Your task to perform on an android device: Show me productivity apps on the Play Store Image 0: 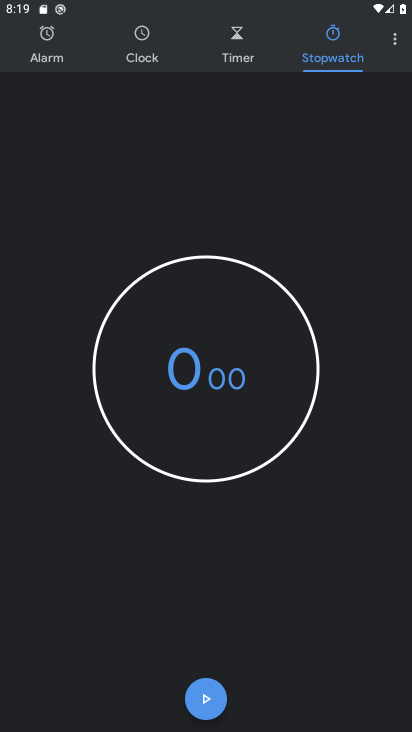
Step 0: press home button
Your task to perform on an android device: Show me productivity apps on the Play Store Image 1: 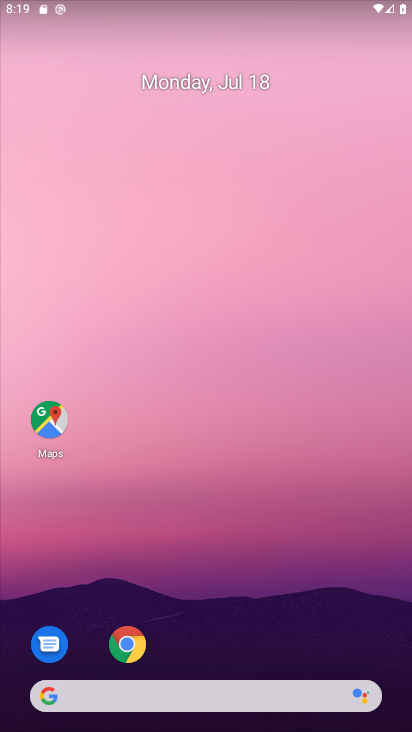
Step 1: drag from (236, 623) to (159, 180)
Your task to perform on an android device: Show me productivity apps on the Play Store Image 2: 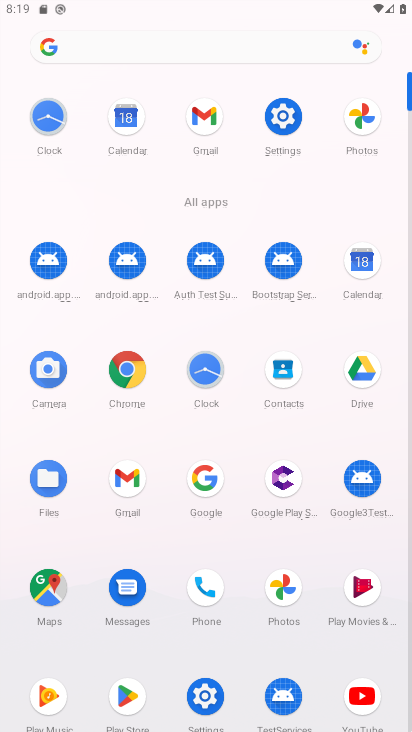
Step 2: click (123, 691)
Your task to perform on an android device: Show me productivity apps on the Play Store Image 3: 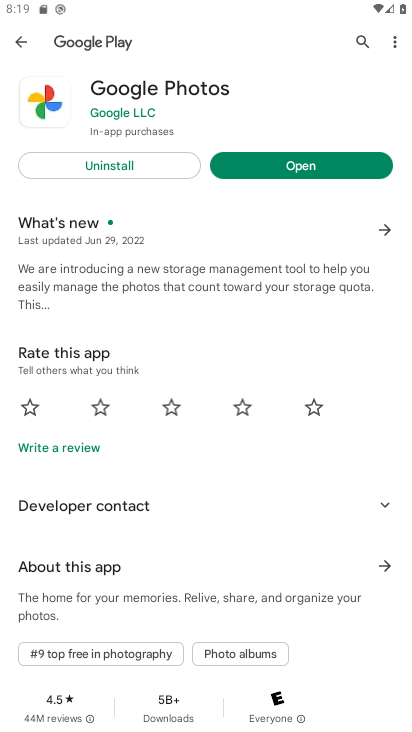
Step 3: click (24, 42)
Your task to perform on an android device: Show me productivity apps on the Play Store Image 4: 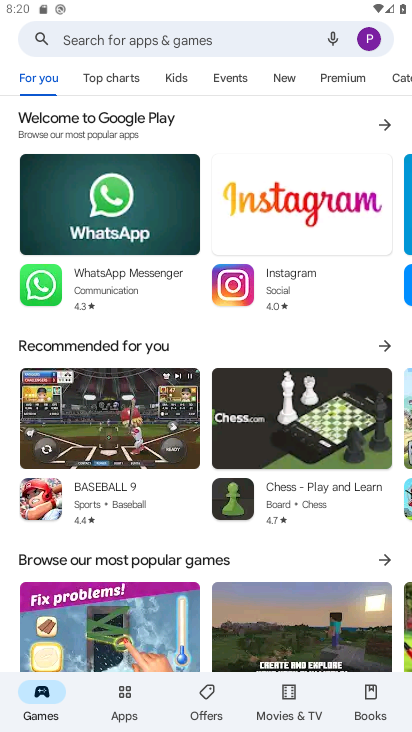
Step 4: click (117, 77)
Your task to perform on an android device: Show me productivity apps on the Play Store Image 5: 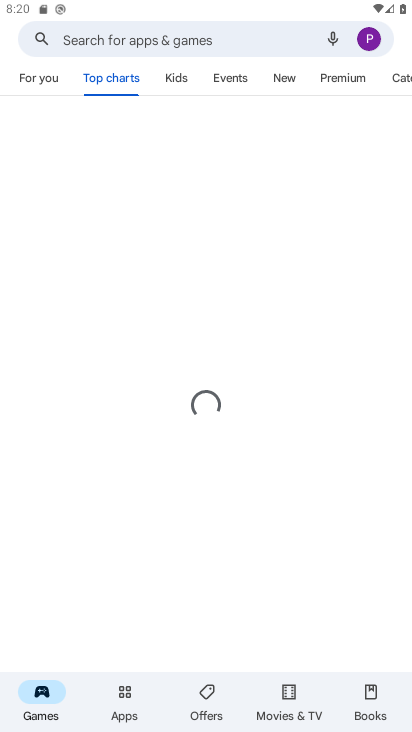
Step 5: click (135, 723)
Your task to perform on an android device: Show me productivity apps on the Play Store Image 6: 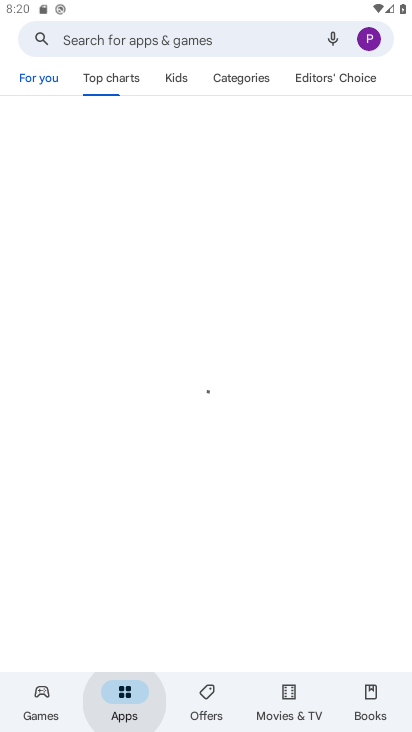
Step 6: click (135, 723)
Your task to perform on an android device: Show me productivity apps on the Play Store Image 7: 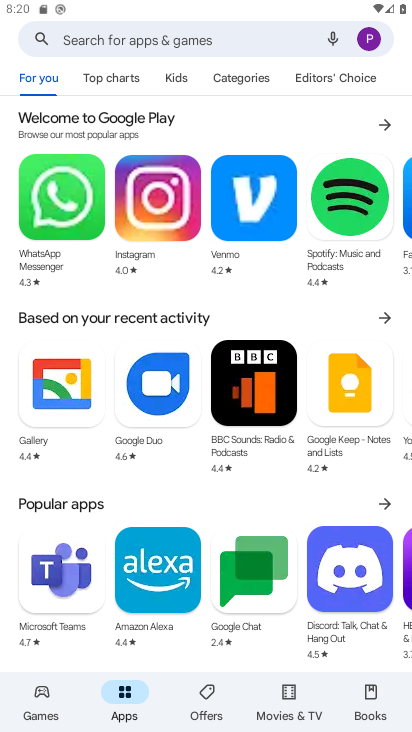
Step 7: click (130, 82)
Your task to perform on an android device: Show me productivity apps on the Play Store Image 8: 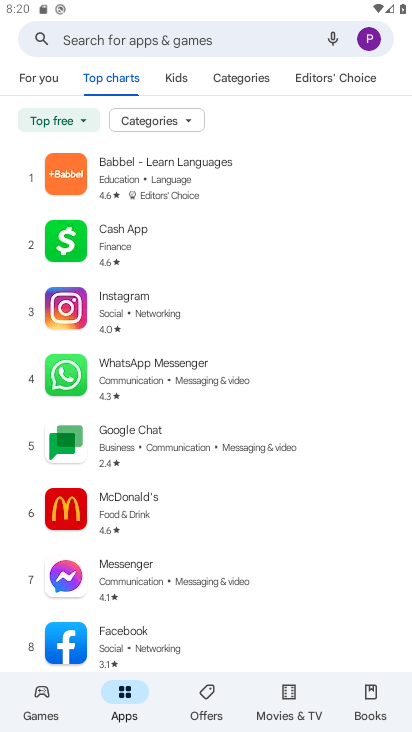
Step 8: click (171, 119)
Your task to perform on an android device: Show me productivity apps on the Play Store Image 9: 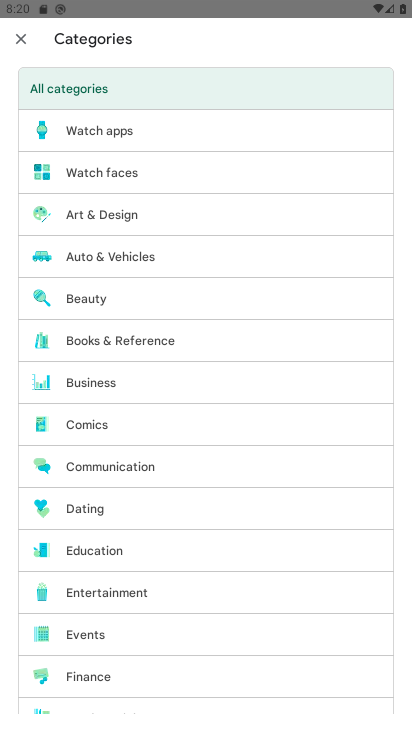
Step 9: drag from (153, 660) to (158, 264)
Your task to perform on an android device: Show me productivity apps on the Play Store Image 10: 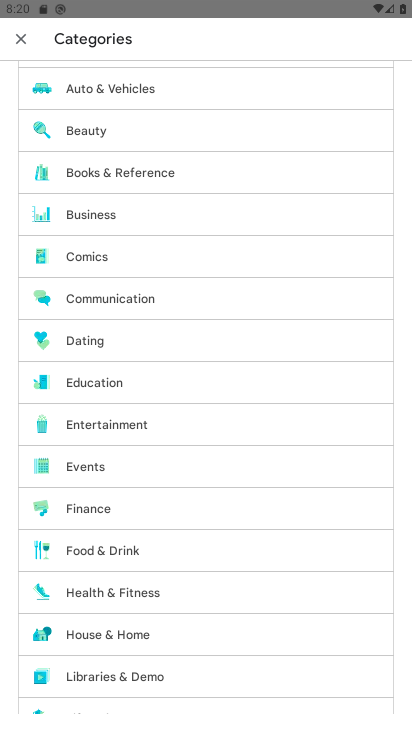
Step 10: drag from (183, 644) to (193, 363)
Your task to perform on an android device: Show me productivity apps on the Play Store Image 11: 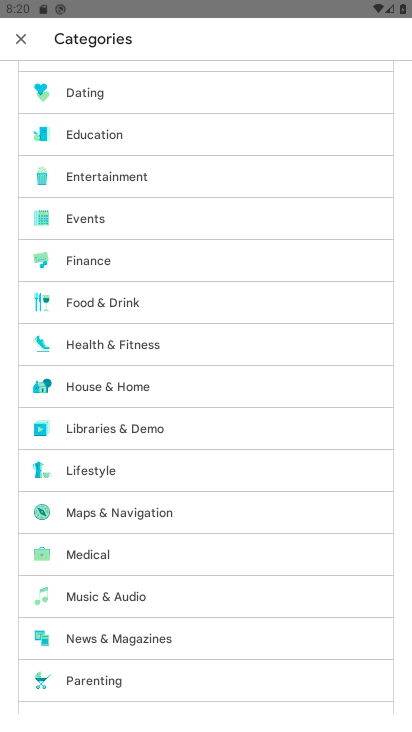
Step 11: drag from (184, 638) to (193, 251)
Your task to perform on an android device: Show me productivity apps on the Play Store Image 12: 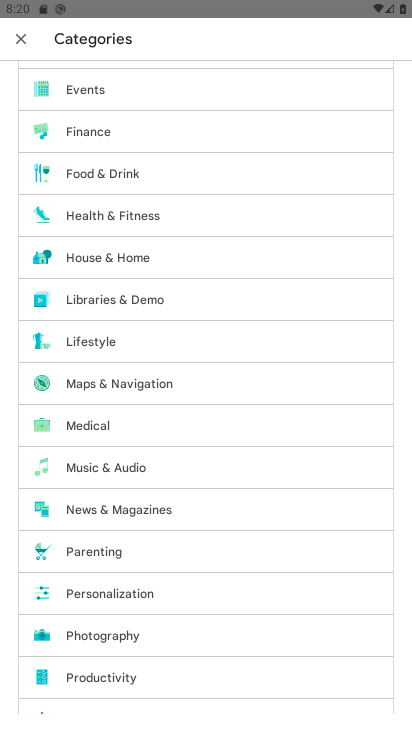
Step 12: click (125, 641)
Your task to perform on an android device: Show me productivity apps on the Play Store Image 13: 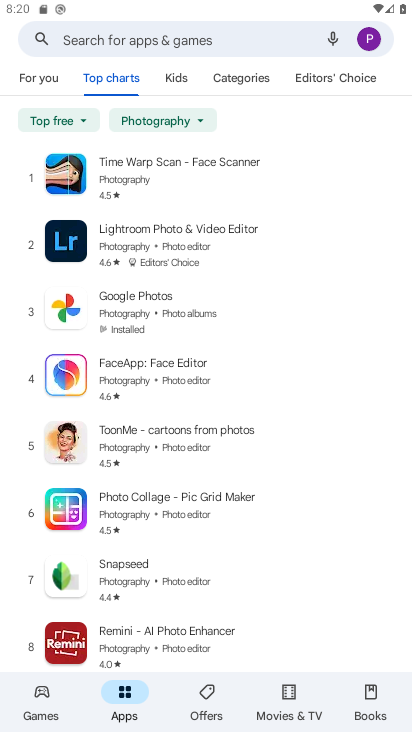
Step 13: click (191, 108)
Your task to perform on an android device: Show me productivity apps on the Play Store Image 14: 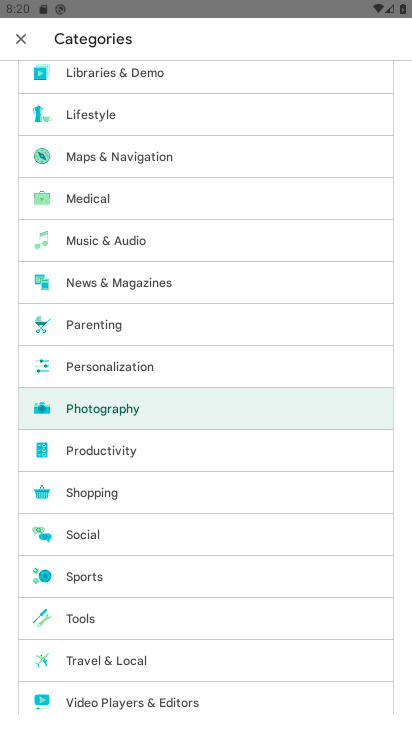
Step 14: click (167, 461)
Your task to perform on an android device: Show me productivity apps on the Play Store Image 15: 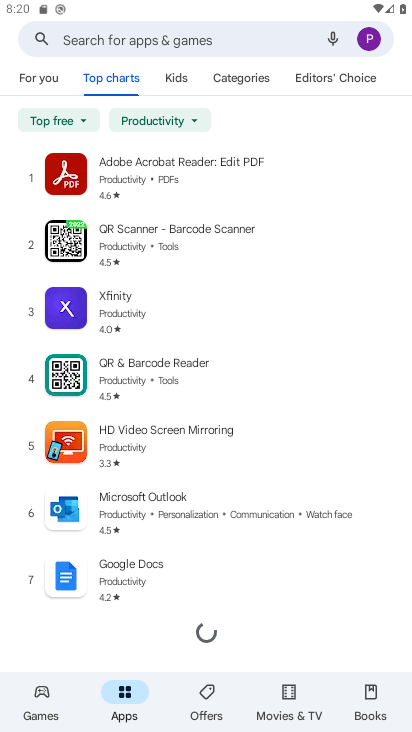
Step 15: task complete